Your task to perform on an android device: turn notification dots on Image 0: 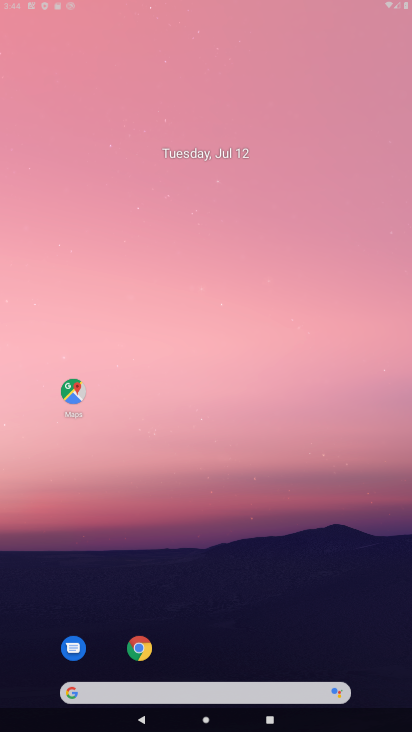
Step 0: press home button
Your task to perform on an android device: turn notification dots on Image 1: 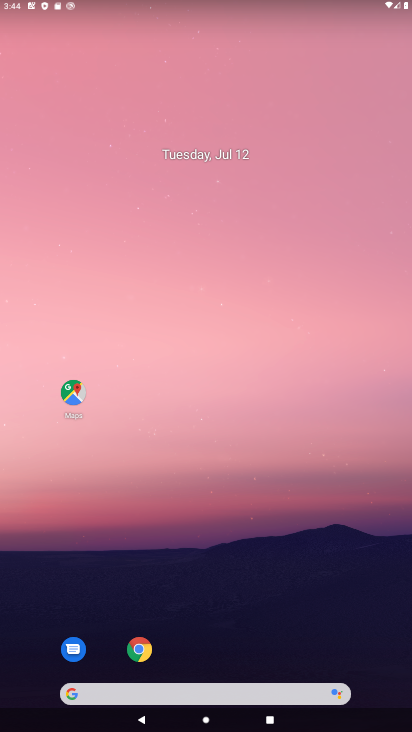
Step 1: drag from (222, 654) to (202, 92)
Your task to perform on an android device: turn notification dots on Image 2: 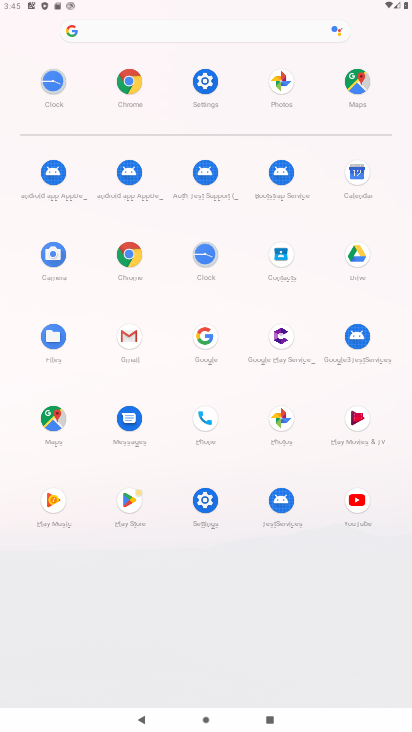
Step 2: click (203, 78)
Your task to perform on an android device: turn notification dots on Image 3: 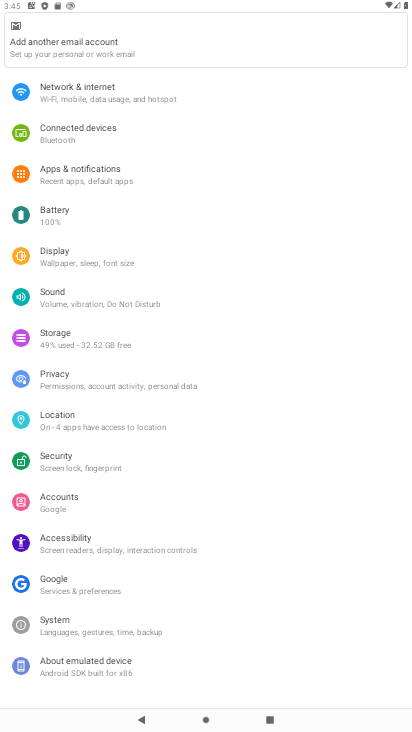
Step 3: click (135, 166)
Your task to perform on an android device: turn notification dots on Image 4: 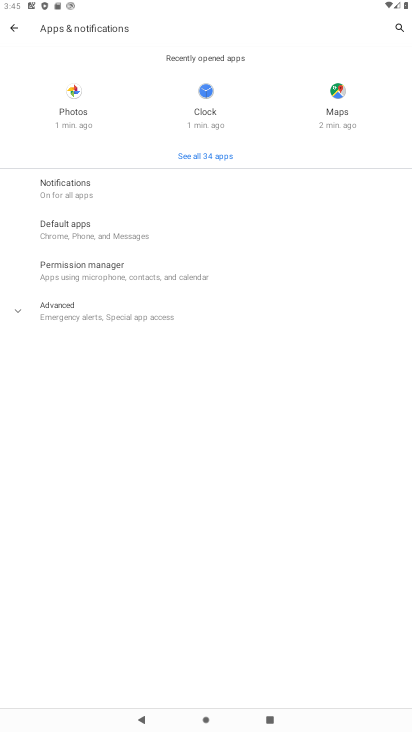
Step 4: click (97, 185)
Your task to perform on an android device: turn notification dots on Image 5: 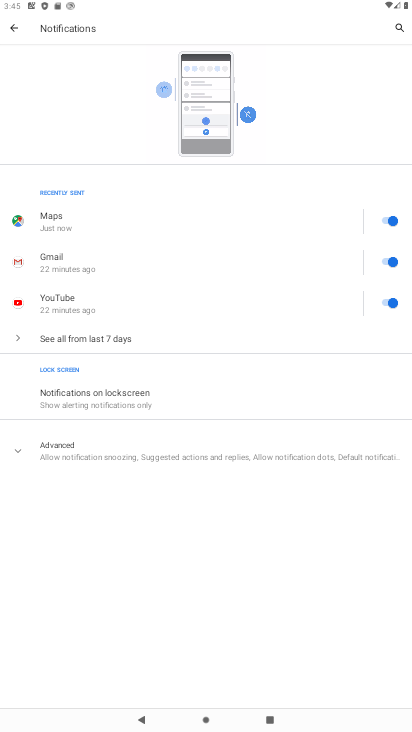
Step 5: click (20, 450)
Your task to perform on an android device: turn notification dots on Image 6: 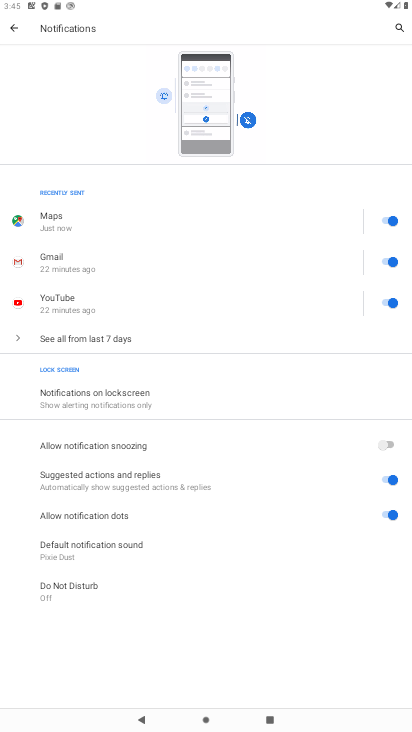
Step 6: task complete